Your task to perform on an android device: turn off sleep mode Image 0: 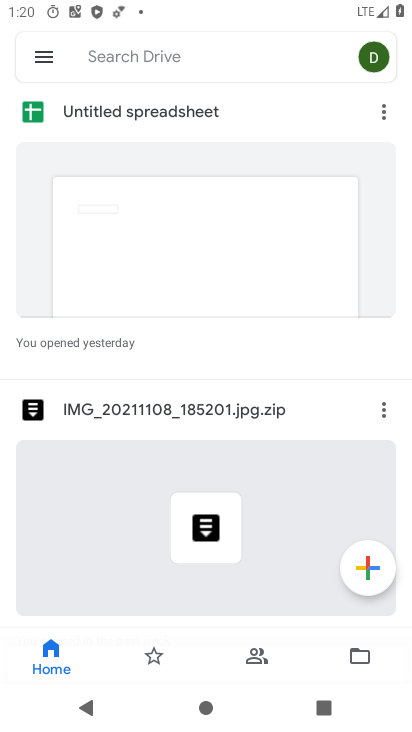
Step 0: press home button
Your task to perform on an android device: turn off sleep mode Image 1: 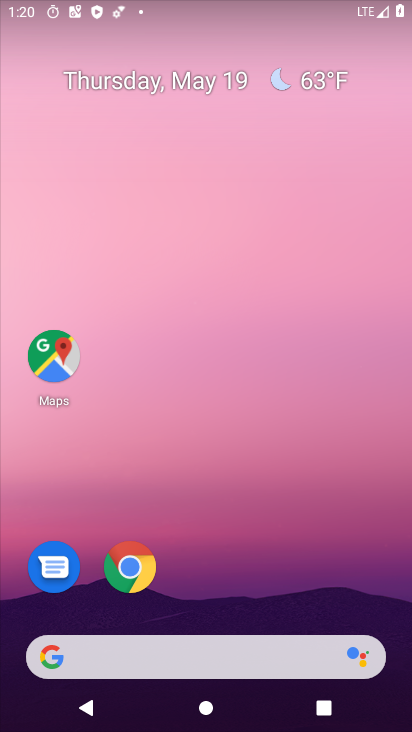
Step 1: drag from (185, 661) to (282, 252)
Your task to perform on an android device: turn off sleep mode Image 2: 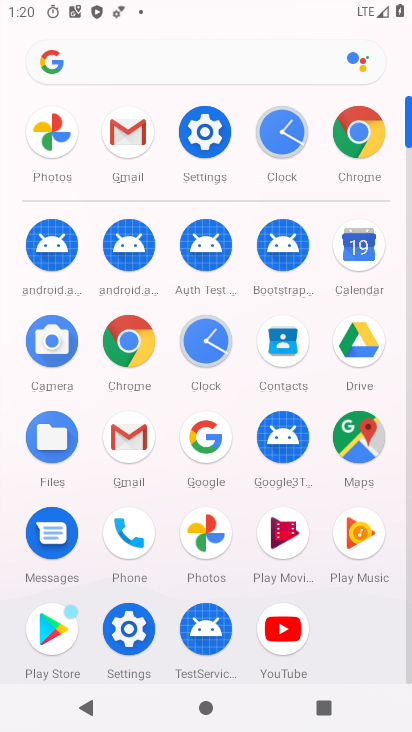
Step 2: click (213, 143)
Your task to perform on an android device: turn off sleep mode Image 3: 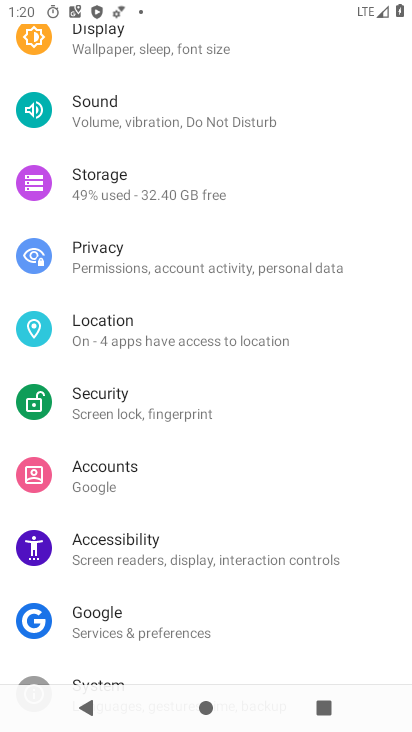
Step 3: click (160, 47)
Your task to perform on an android device: turn off sleep mode Image 4: 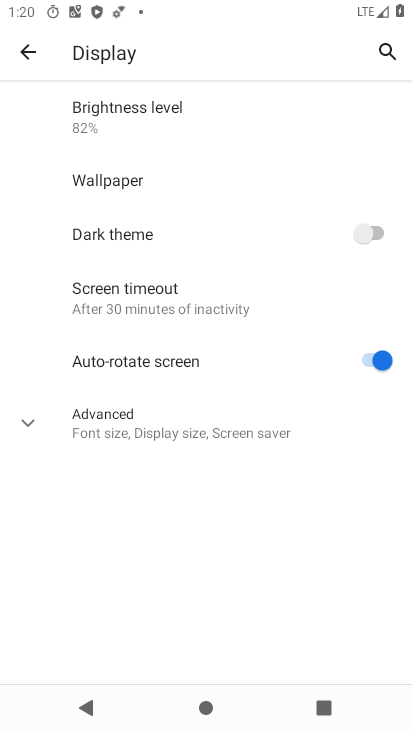
Step 4: task complete